Your task to perform on an android device: change the upload size in google photos Image 0: 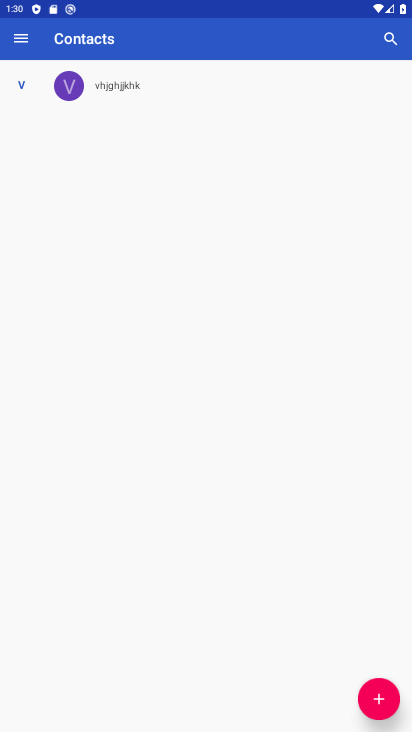
Step 0: press home button
Your task to perform on an android device: change the upload size in google photos Image 1: 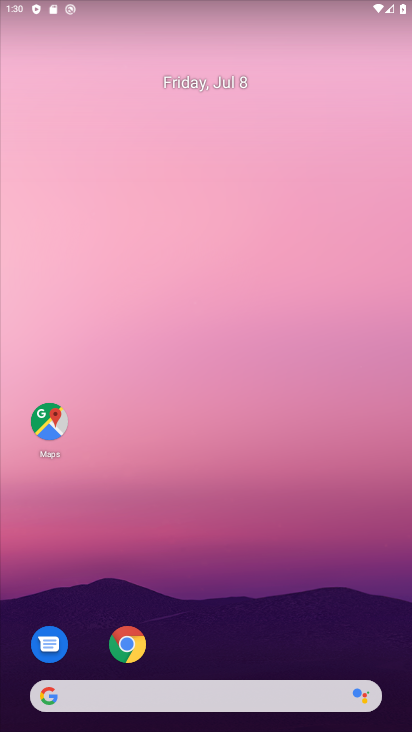
Step 1: drag from (196, 621) to (222, 78)
Your task to perform on an android device: change the upload size in google photos Image 2: 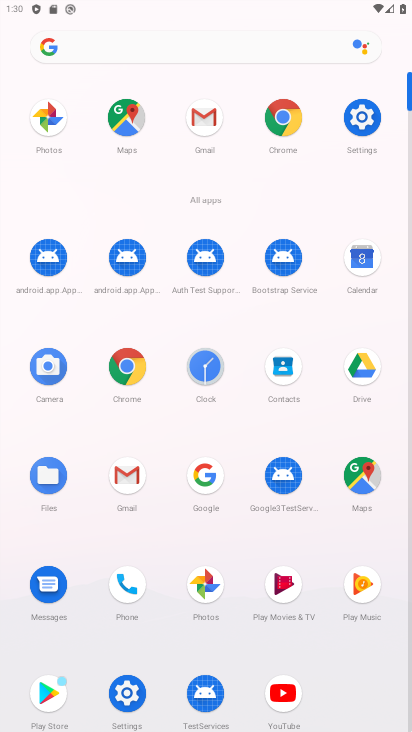
Step 2: click (204, 584)
Your task to perform on an android device: change the upload size in google photos Image 3: 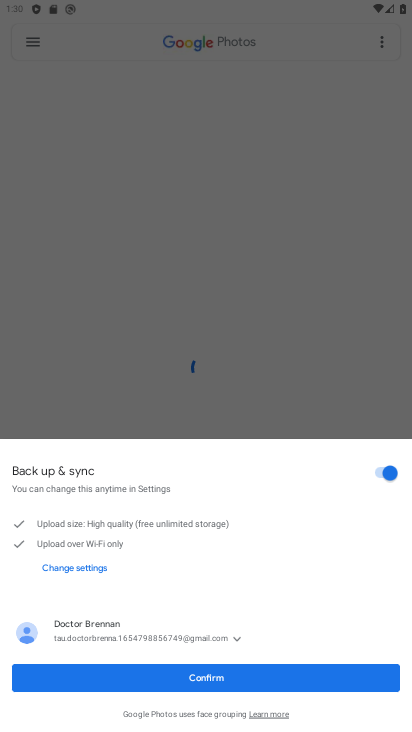
Step 3: click (161, 681)
Your task to perform on an android device: change the upload size in google photos Image 4: 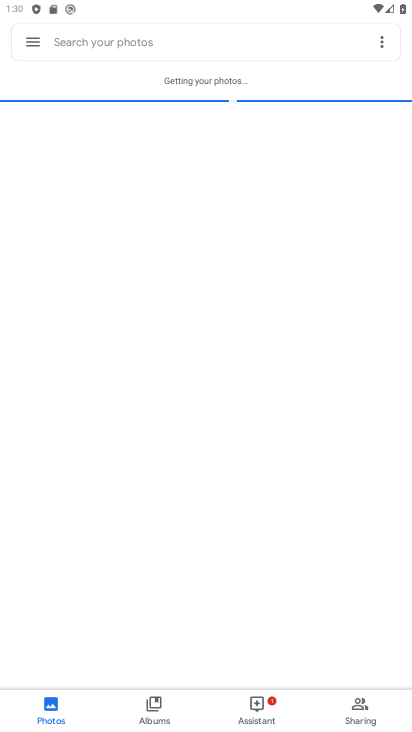
Step 4: click (29, 40)
Your task to perform on an android device: change the upload size in google photos Image 5: 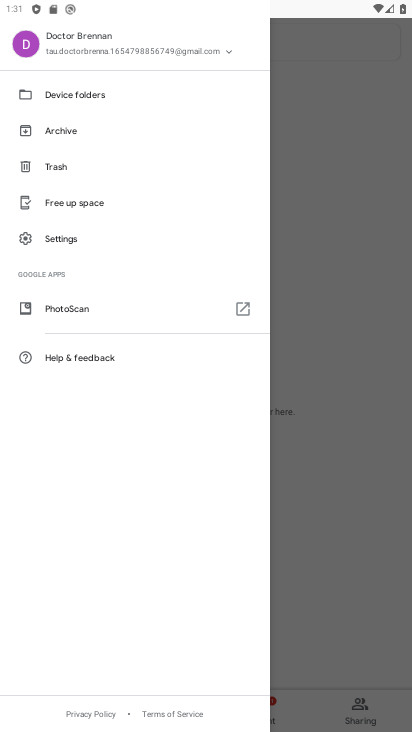
Step 5: click (70, 243)
Your task to perform on an android device: change the upload size in google photos Image 6: 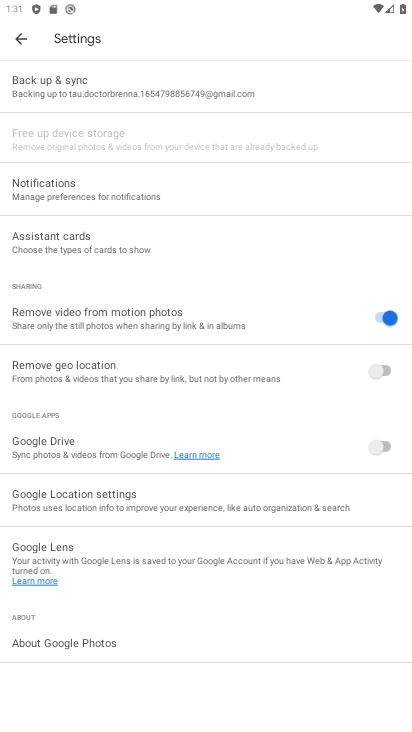
Step 6: click (97, 71)
Your task to perform on an android device: change the upload size in google photos Image 7: 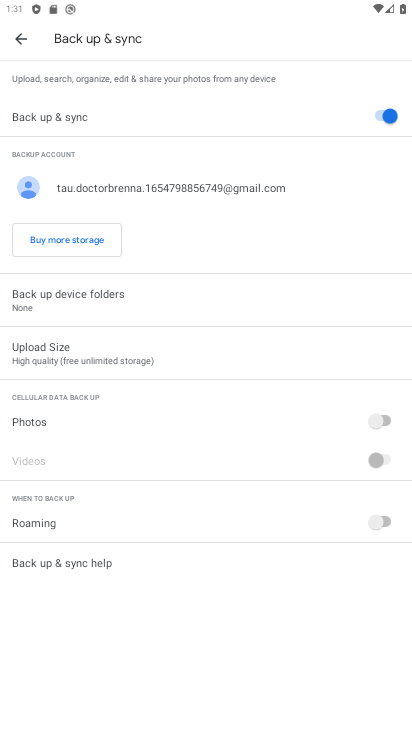
Step 7: click (71, 359)
Your task to perform on an android device: change the upload size in google photos Image 8: 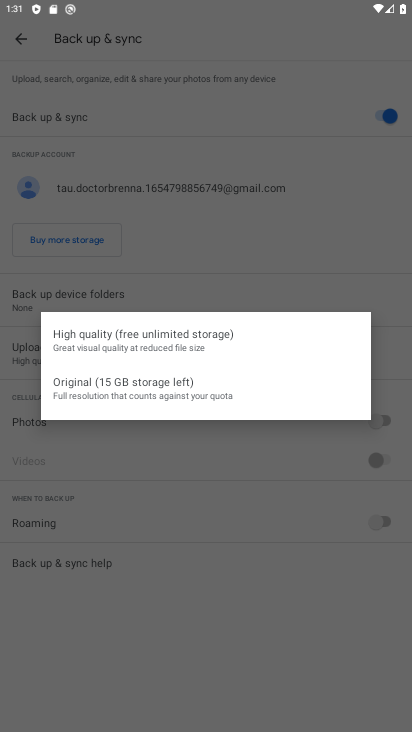
Step 8: click (122, 386)
Your task to perform on an android device: change the upload size in google photos Image 9: 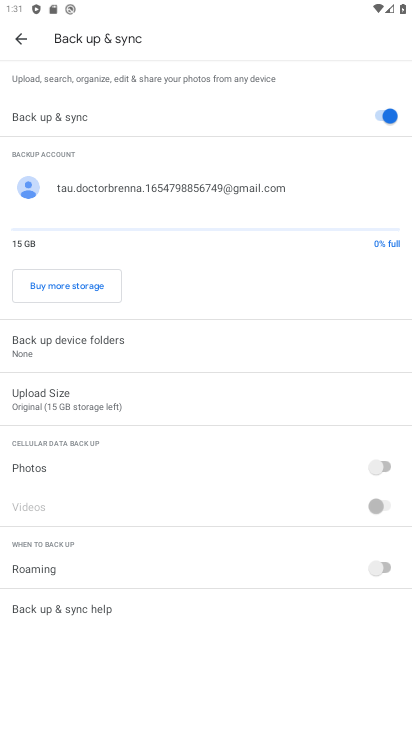
Step 9: task complete